Your task to perform on an android device: Open the Play Movies app and select the watchlist tab. Image 0: 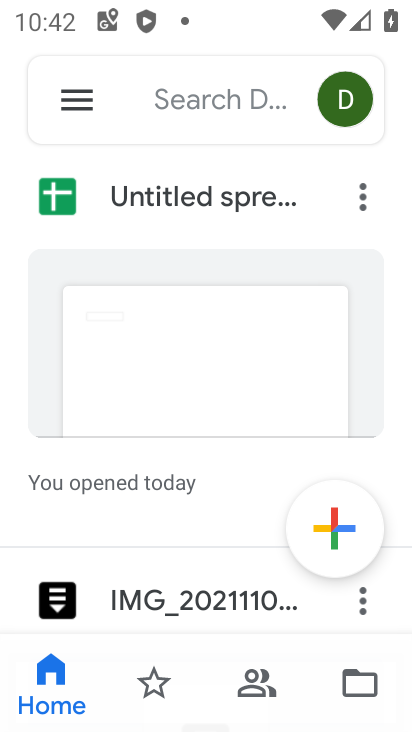
Step 0: press home button
Your task to perform on an android device: Open the Play Movies app and select the watchlist tab. Image 1: 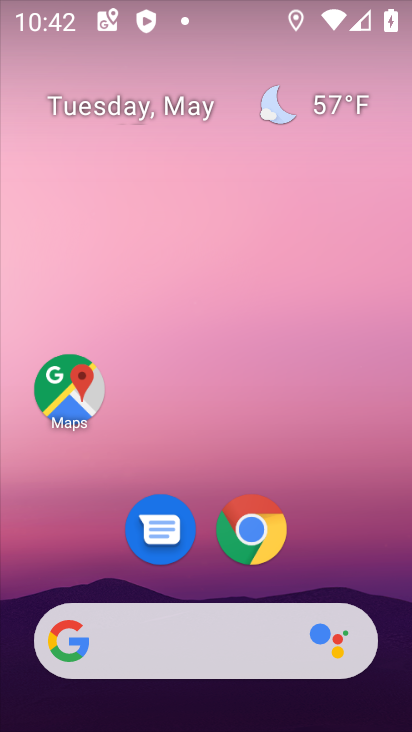
Step 1: drag from (206, 561) to (201, 119)
Your task to perform on an android device: Open the Play Movies app and select the watchlist tab. Image 2: 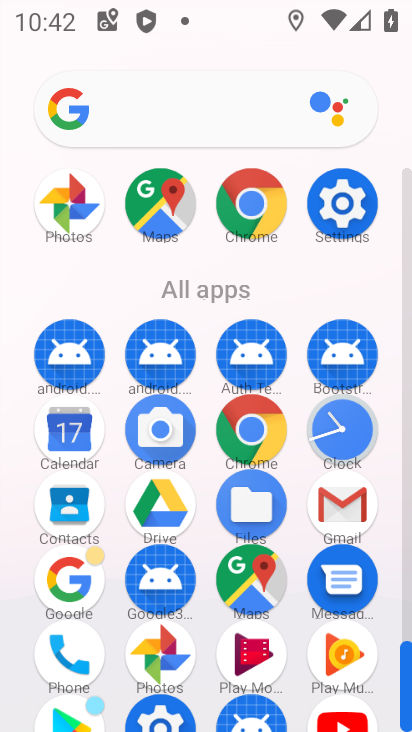
Step 2: click (246, 659)
Your task to perform on an android device: Open the Play Movies app and select the watchlist tab. Image 3: 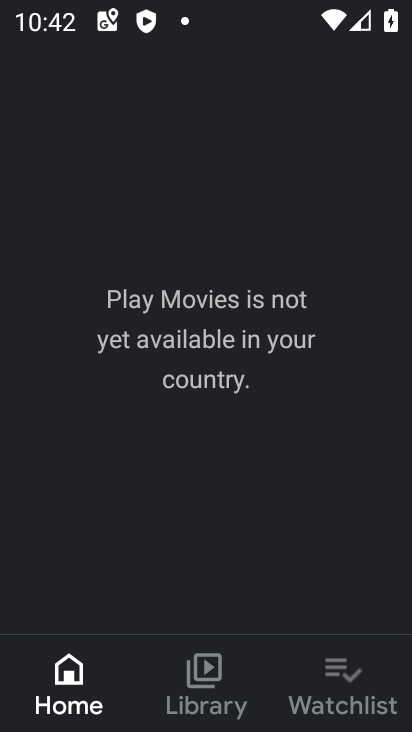
Step 3: click (349, 656)
Your task to perform on an android device: Open the Play Movies app and select the watchlist tab. Image 4: 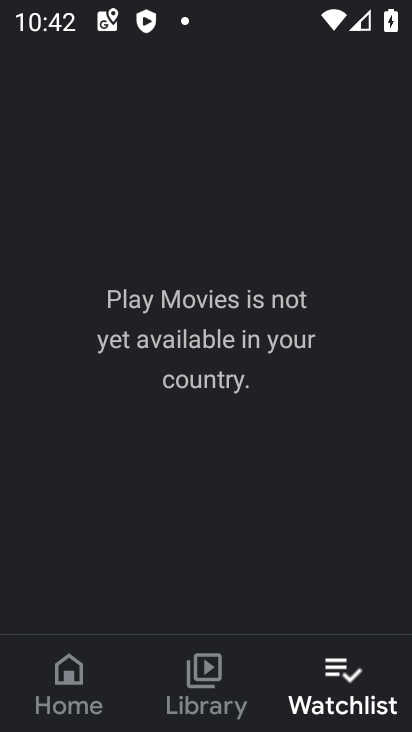
Step 4: task complete